Your task to perform on an android device: Go to accessibility settings Image 0: 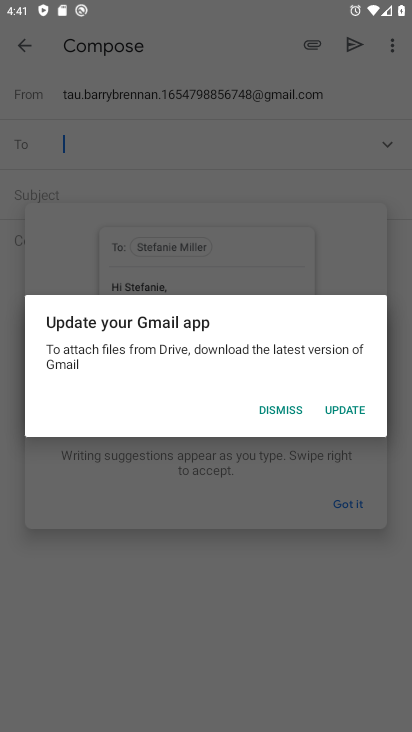
Step 0: click (292, 411)
Your task to perform on an android device: Go to accessibility settings Image 1: 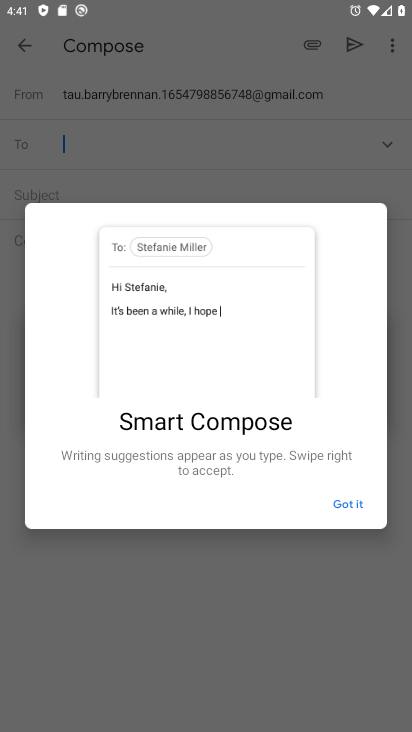
Step 1: click (351, 496)
Your task to perform on an android device: Go to accessibility settings Image 2: 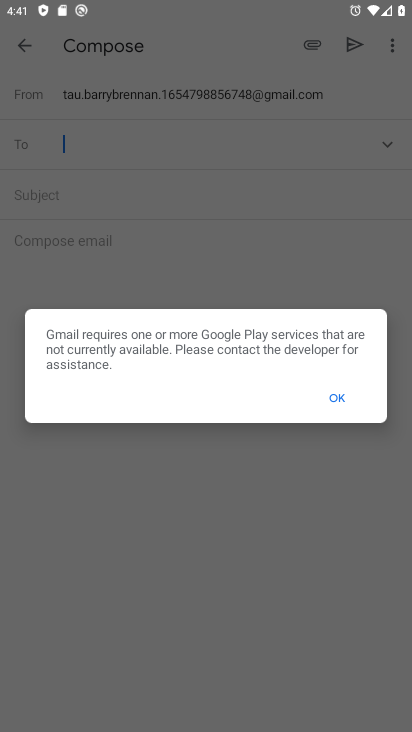
Step 2: click (351, 496)
Your task to perform on an android device: Go to accessibility settings Image 3: 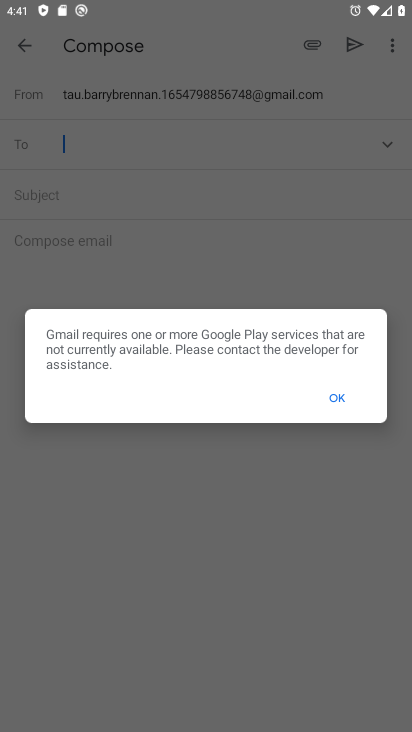
Step 3: click (351, 496)
Your task to perform on an android device: Go to accessibility settings Image 4: 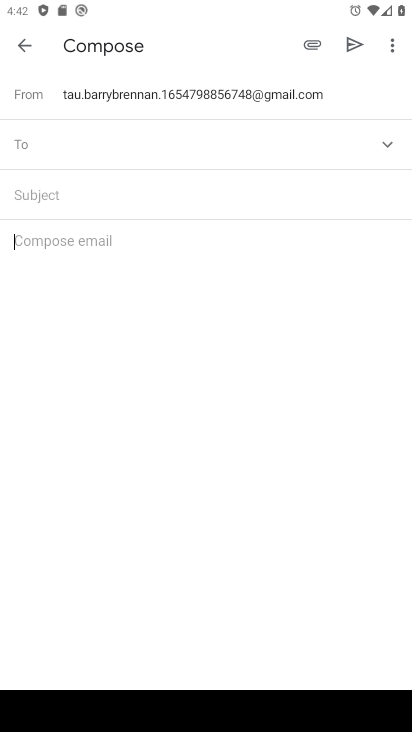
Step 4: click (22, 42)
Your task to perform on an android device: Go to accessibility settings Image 5: 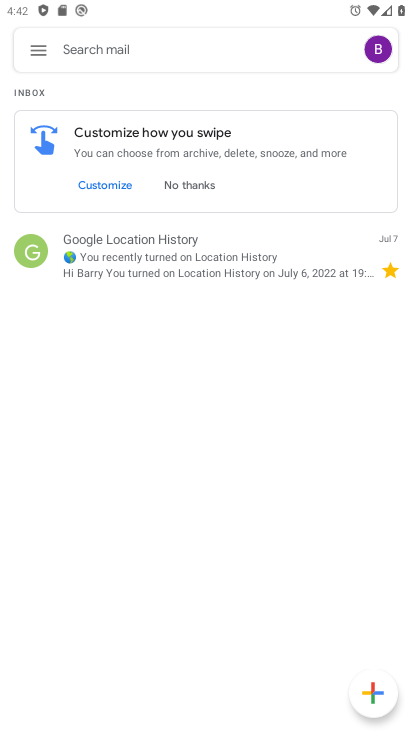
Step 5: press back button
Your task to perform on an android device: Go to accessibility settings Image 6: 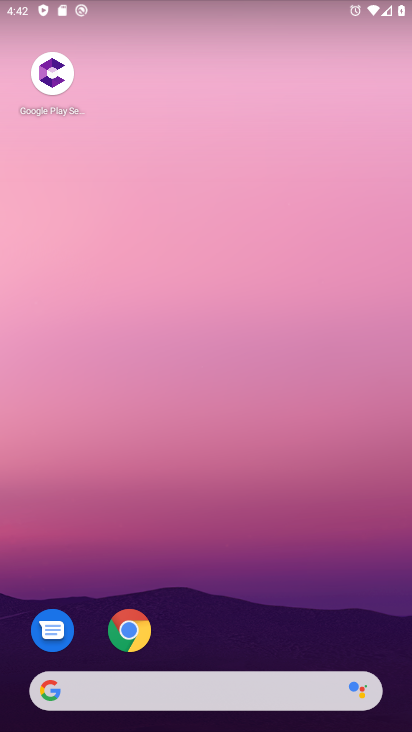
Step 6: drag from (226, 726) to (95, 72)
Your task to perform on an android device: Go to accessibility settings Image 7: 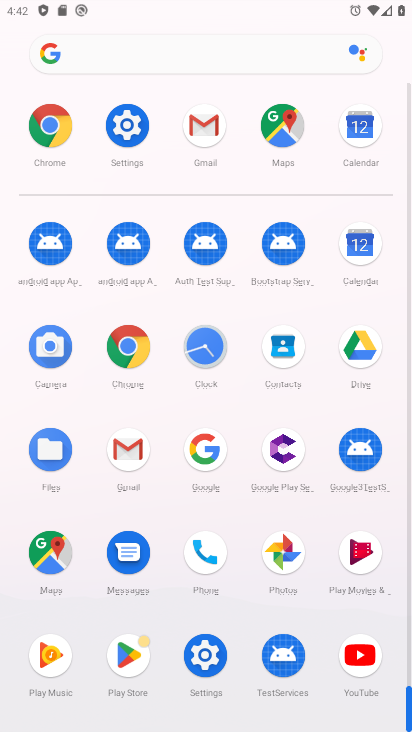
Step 7: click (200, 651)
Your task to perform on an android device: Go to accessibility settings Image 8: 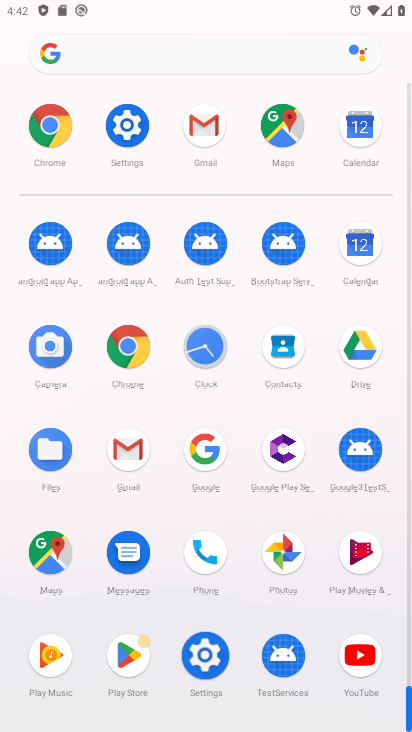
Step 8: click (199, 652)
Your task to perform on an android device: Go to accessibility settings Image 9: 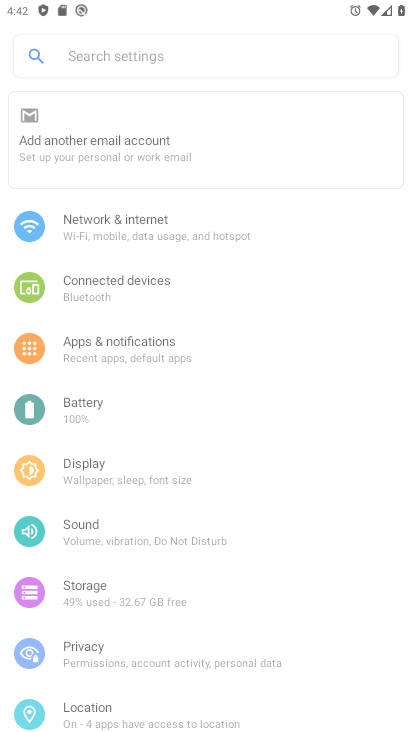
Step 9: click (200, 654)
Your task to perform on an android device: Go to accessibility settings Image 10: 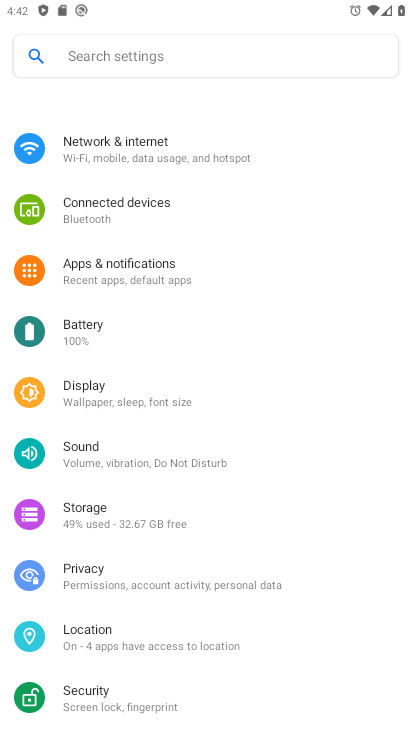
Step 10: click (202, 654)
Your task to perform on an android device: Go to accessibility settings Image 11: 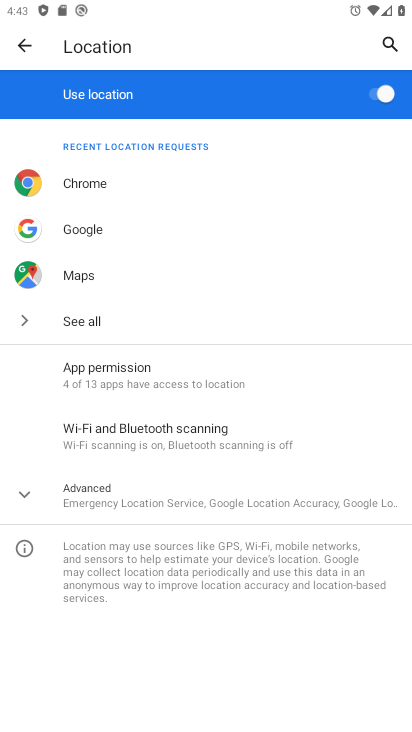
Step 11: click (15, 33)
Your task to perform on an android device: Go to accessibility settings Image 12: 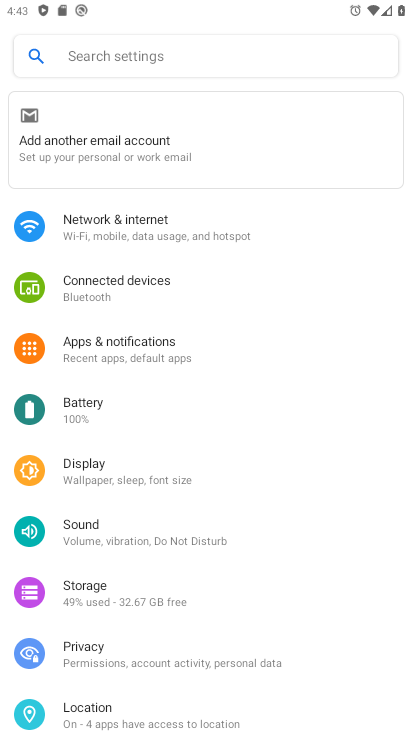
Step 12: drag from (166, 603) to (125, 175)
Your task to perform on an android device: Go to accessibility settings Image 13: 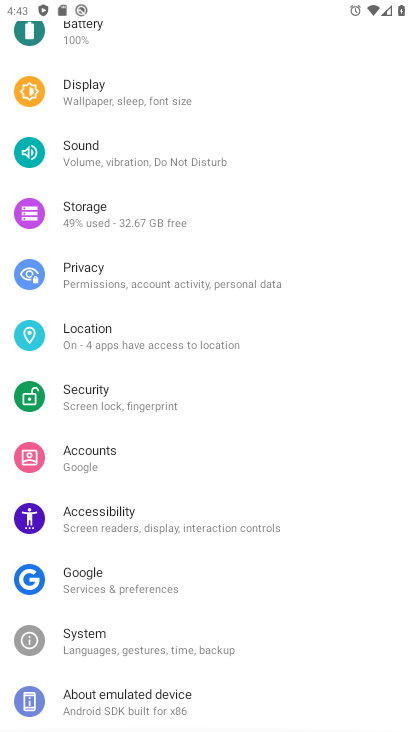
Step 13: drag from (169, 400) to (232, 173)
Your task to perform on an android device: Go to accessibility settings Image 14: 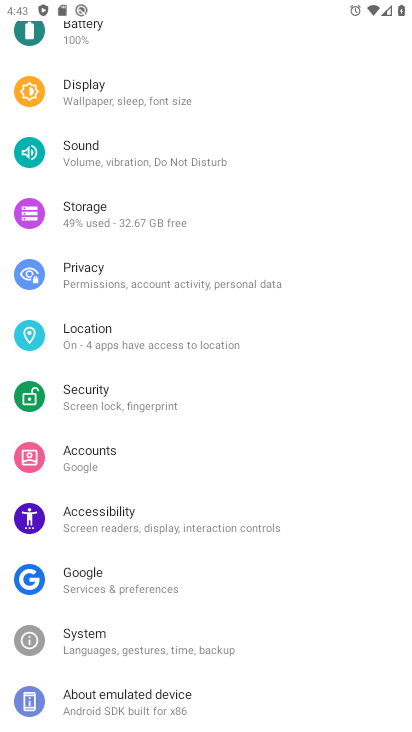
Step 14: click (107, 528)
Your task to perform on an android device: Go to accessibility settings Image 15: 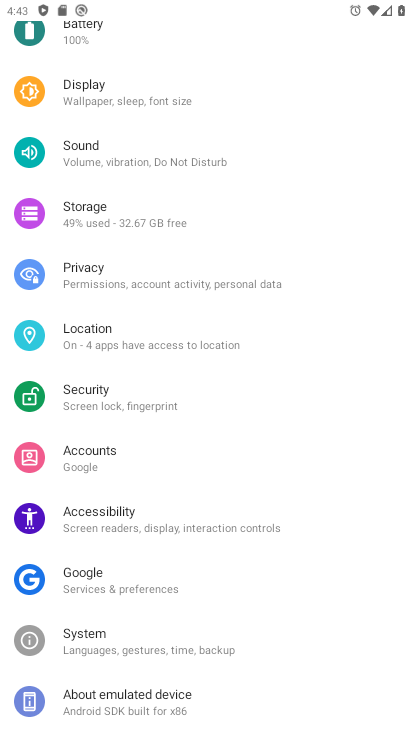
Step 15: click (103, 517)
Your task to perform on an android device: Go to accessibility settings Image 16: 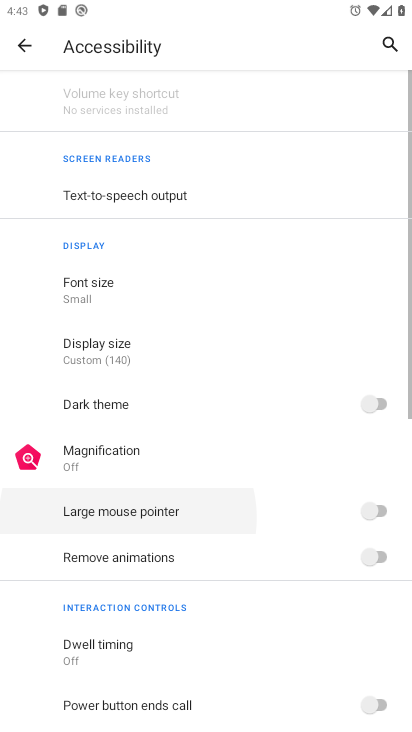
Step 16: click (103, 517)
Your task to perform on an android device: Go to accessibility settings Image 17: 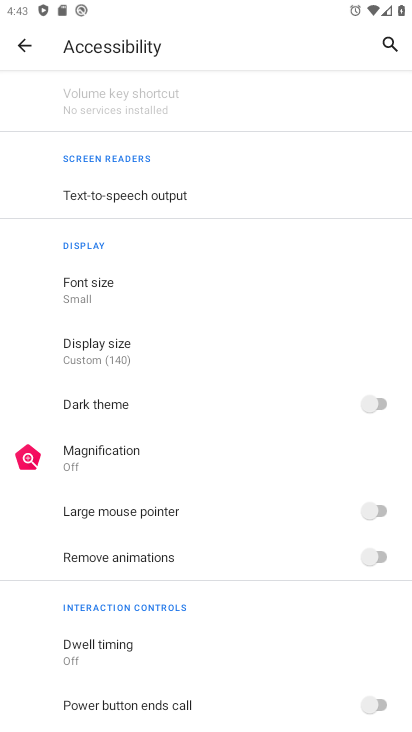
Step 17: task complete